Your task to perform on an android device: Go to Reddit.com Image 0: 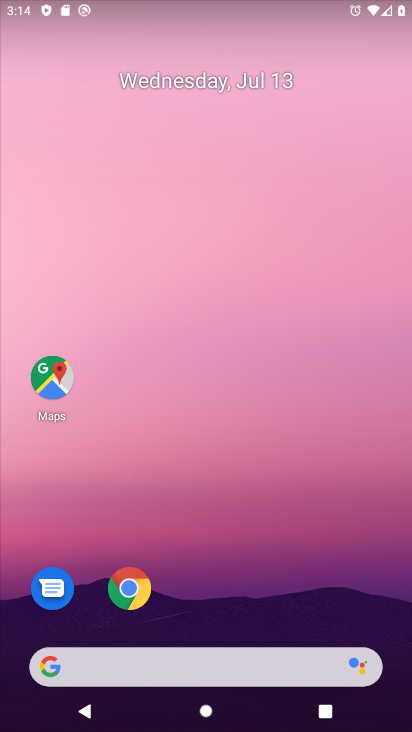
Step 0: drag from (248, 696) to (157, 102)
Your task to perform on an android device: Go to Reddit.com Image 1: 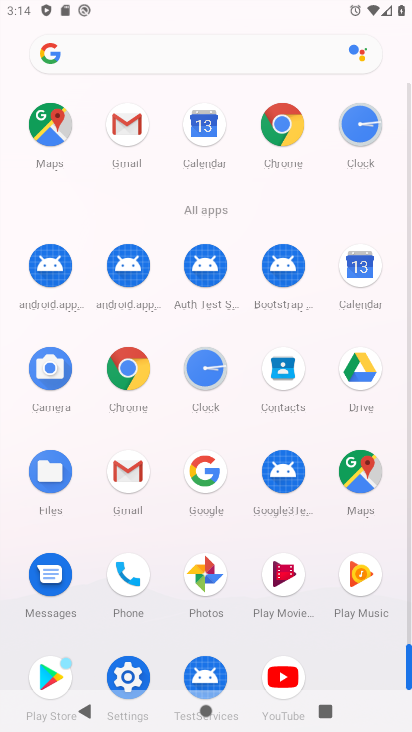
Step 1: click (281, 129)
Your task to perform on an android device: Go to Reddit.com Image 2: 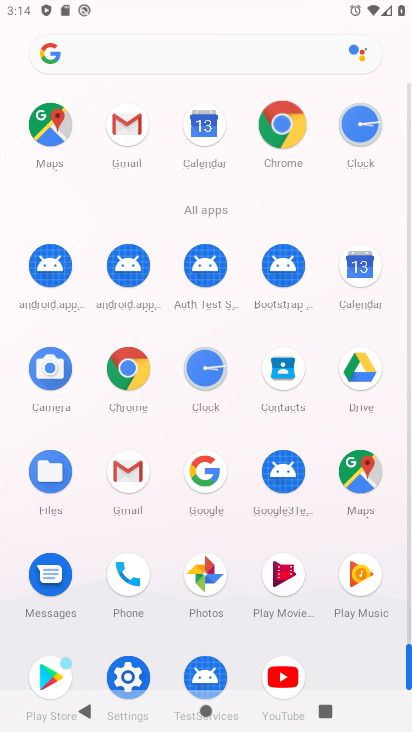
Step 2: click (285, 129)
Your task to perform on an android device: Go to Reddit.com Image 3: 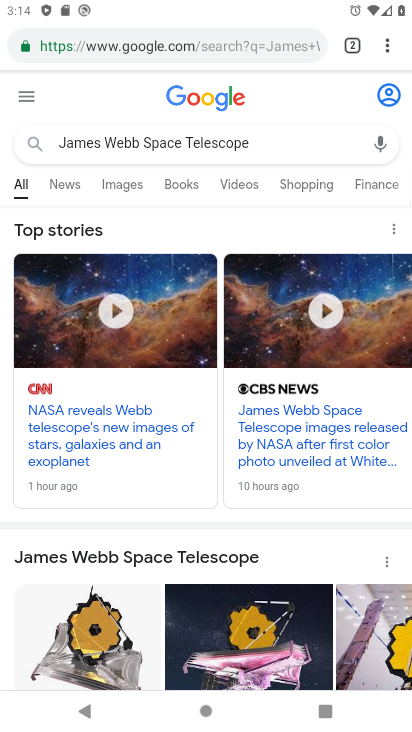
Step 3: click (385, 40)
Your task to perform on an android device: Go to Reddit.com Image 4: 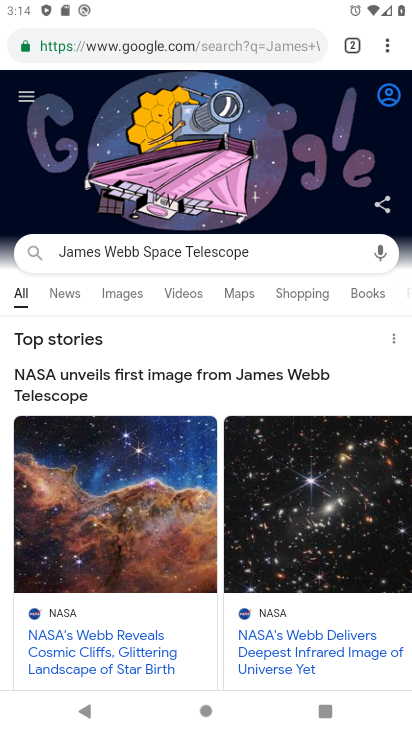
Step 4: click (38, 250)
Your task to perform on an android device: Go to Reddit.com Image 5: 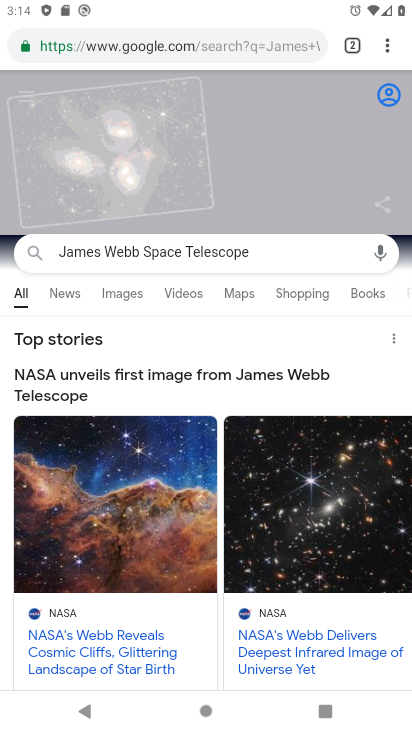
Step 5: click (40, 251)
Your task to perform on an android device: Go to Reddit.com Image 6: 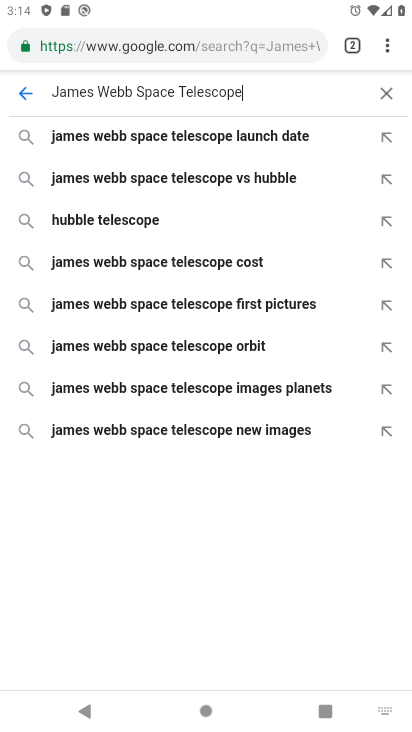
Step 6: click (42, 249)
Your task to perform on an android device: Go to Reddit.com Image 7: 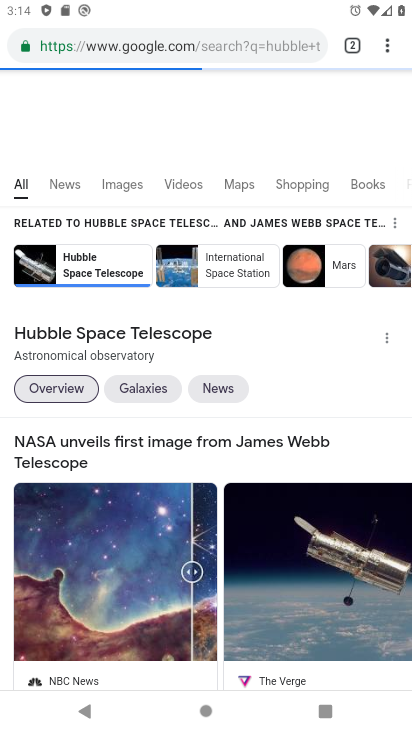
Step 7: drag from (378, 44) to (223, 85)
Your task to perform on an android device: Go to Reddit.com Image 8: 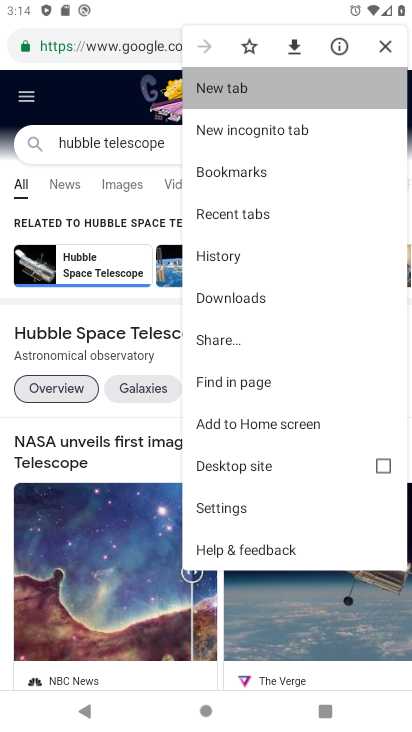
Step 8: click (228, 80)
Your task to perform on an android device: Go to Reddit.com Image 9: 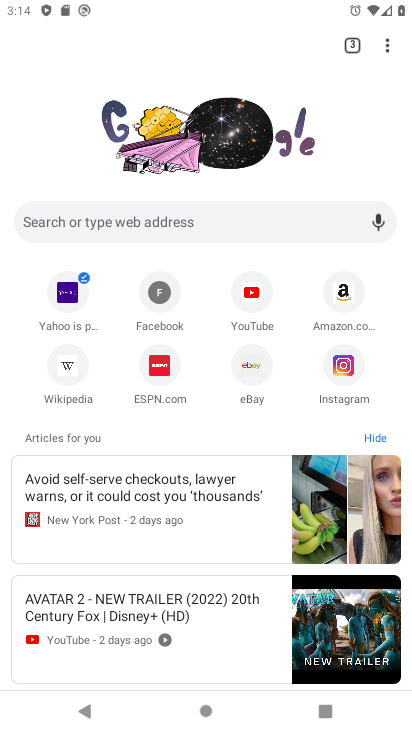
Step 9: click (91, 217)
Your task to perform on an android device: Go to Reddit.com Image 10: 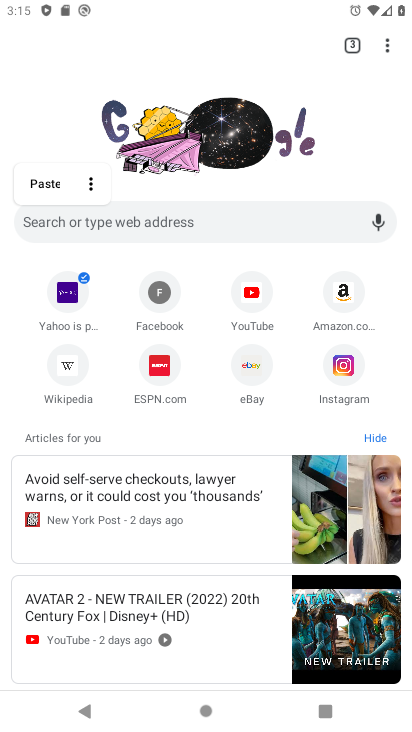
Step 10: type "www.reddit.com"
Your task to perform on an android device: Go to Reddit.com Image 11: 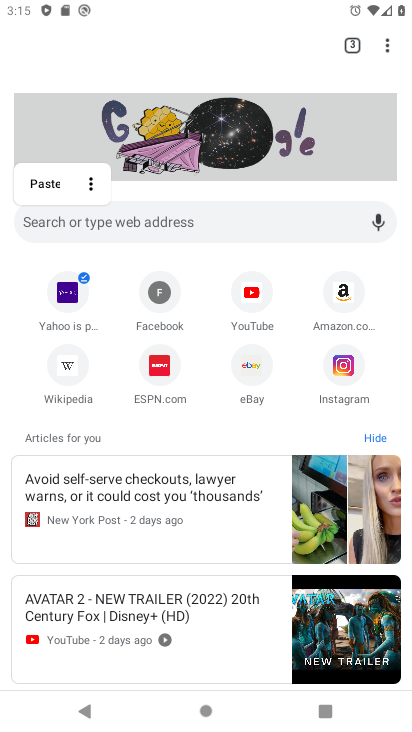
Step 11: click (64, 220)
Your task to perform on an android device: Go to Reddit.com Image 12: 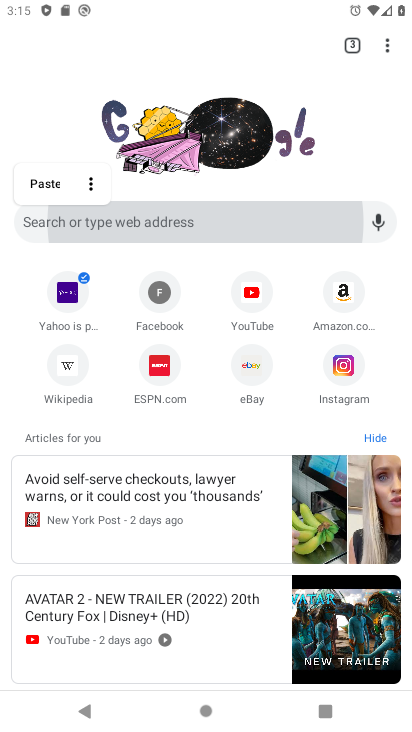
Step 12: click (64, 220)
Your task to perform on an android device: Go to Reddit.com Image 13: 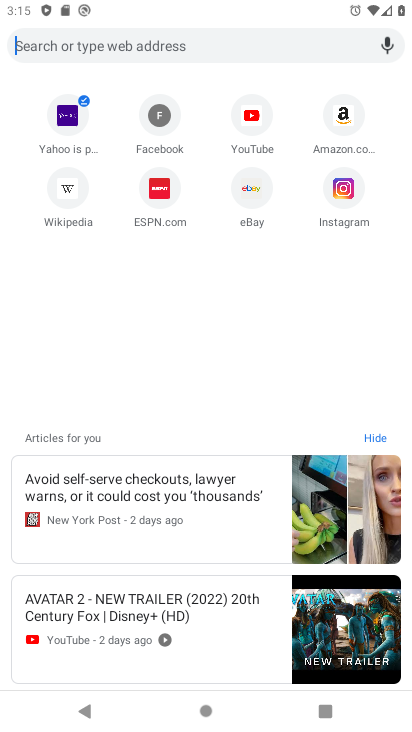
Step 13: click (78, 216)
Your task to perform on an android device: Go to Reddit.com Image 14: 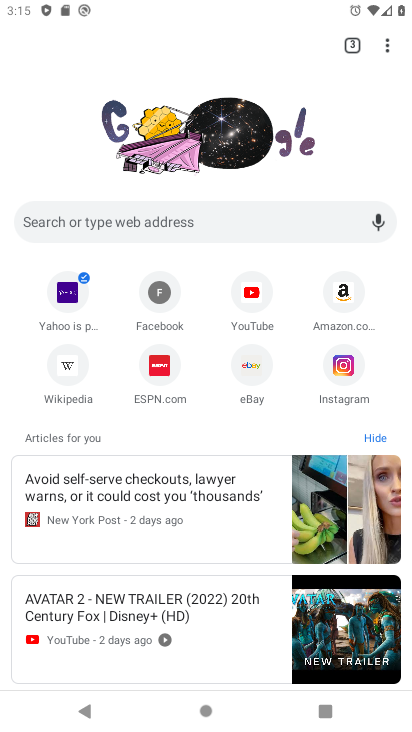
Step 14: click (68, 214)
Your task to perform on an android device: Go to Reddit.com Image 15: 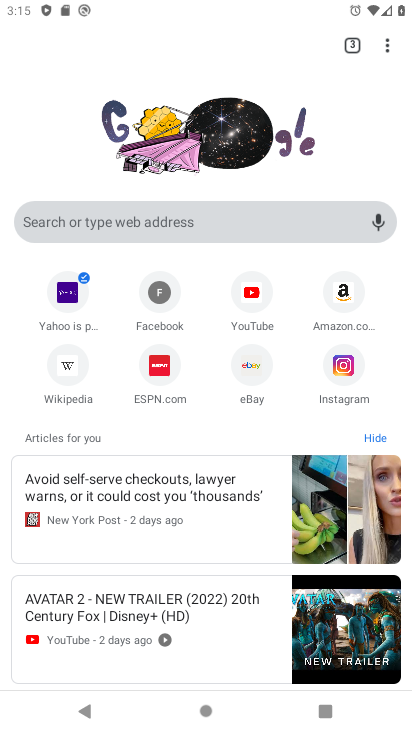
Step 15: click (68, 214)
Your task to perform on an android device: Go to Reddit.com Image 16: 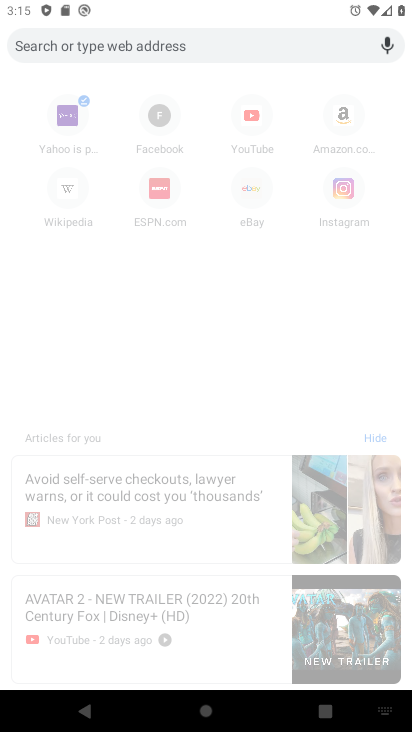
Step 16: type "reddit.com"
Your task to perform on an android device: Go to Reddit.com Image 17: 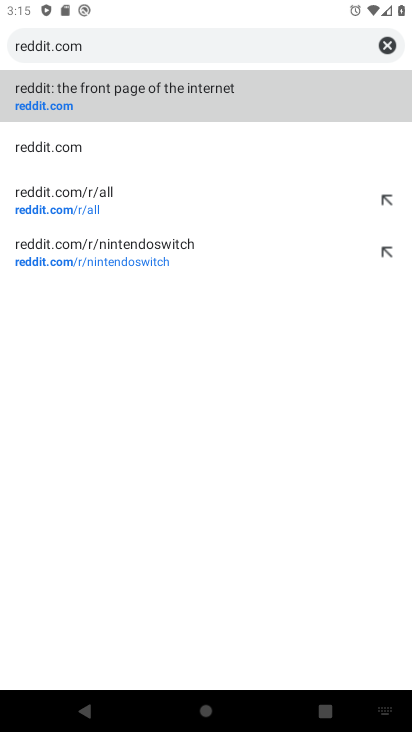
Step 17: click (31, 152)
Your task to perform on an android device: Go to Reddit.com Image 18: 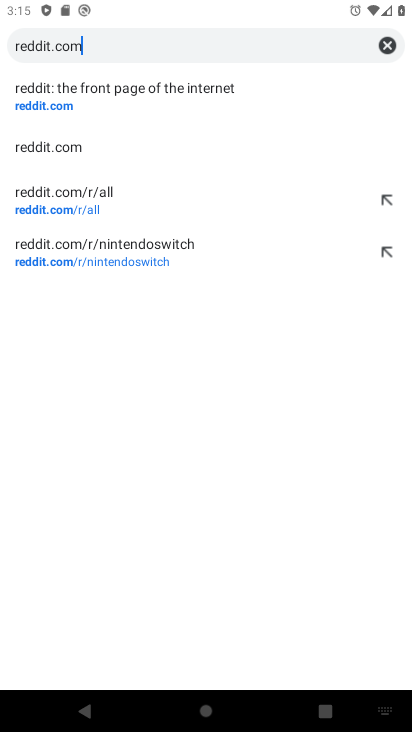
Step 18: click (26, 110)
Your task to perform on an android device: Go to Reddit.com Image 19: 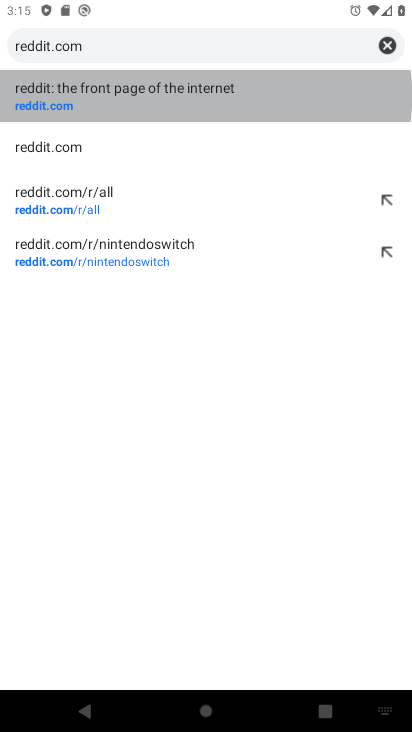
Step 19: click (27, 109)
Your task to perform on an android device: Go to Reddit.com Image 20: 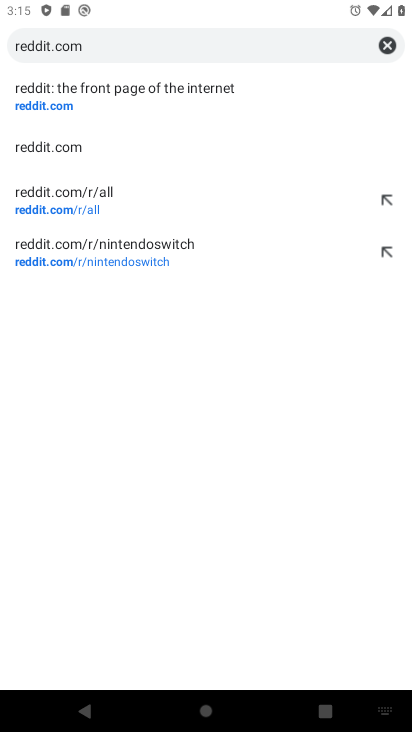
Step 20: click (27, 109)
Your task to perform on an android device: Go to Reddit.com Image 21: 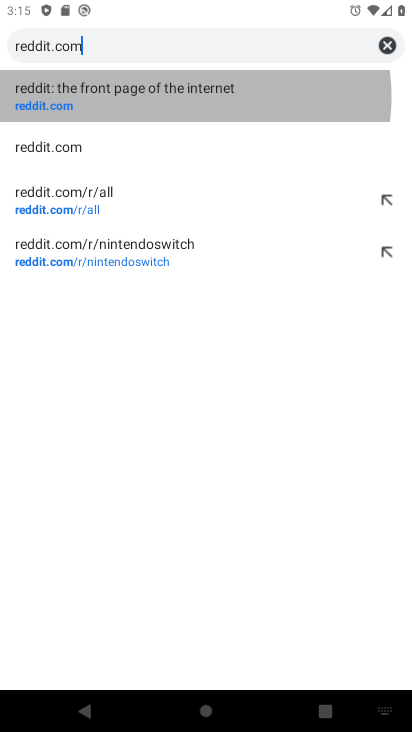
Step 21: click (27, 109)
Your task to perform on an android device: Go to Reddit.com Image 22: 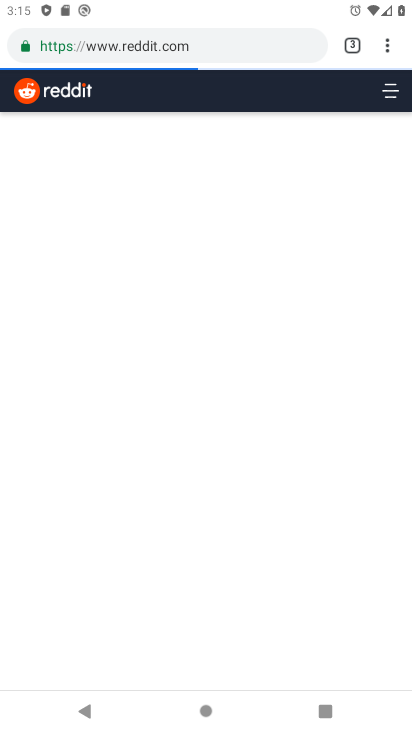
Step 22: task complete